Your task to perform on an android device: Open Google Image 0: 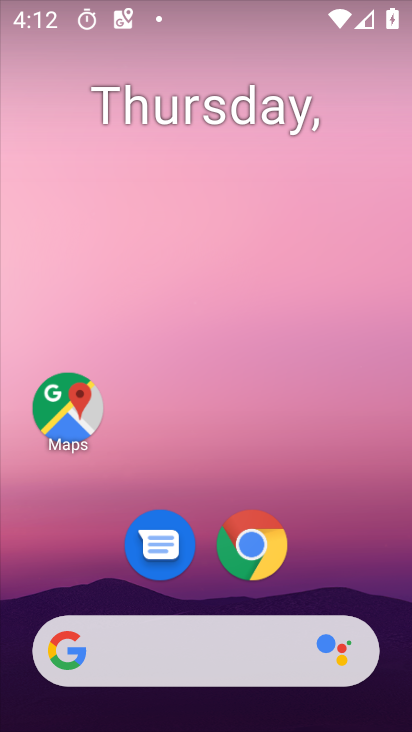
Step 0: drag from (212, 724) to (206, 150)
Your task to perform on an android device: Open Google Image 1: 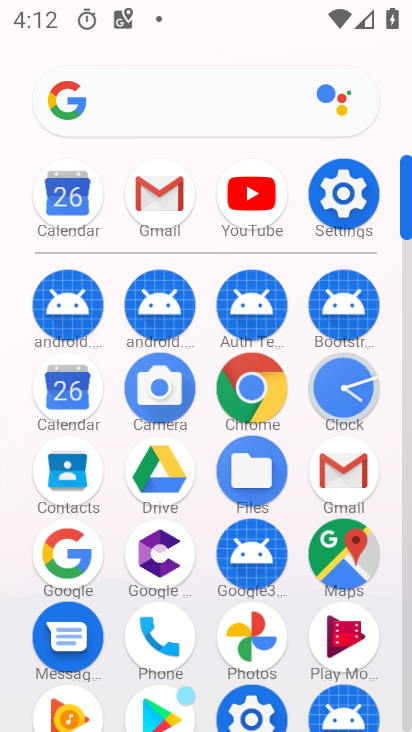
Step 1: click (67, 542)
Your task to perform on an android device: Open Google Image 2: 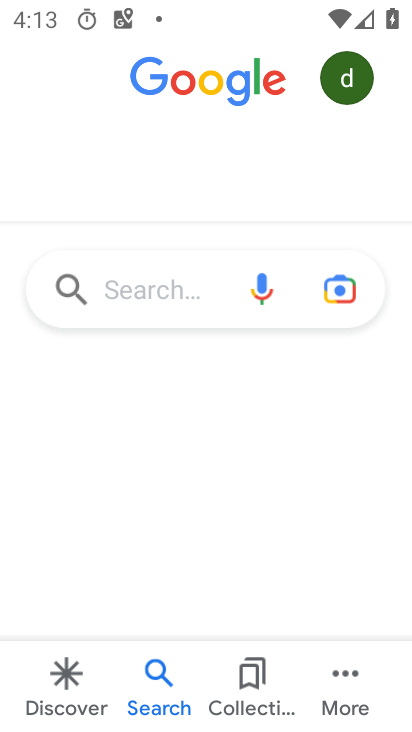
Step 2: task complete